Your task to perform on an android device: toggle sleep mode Image 0: 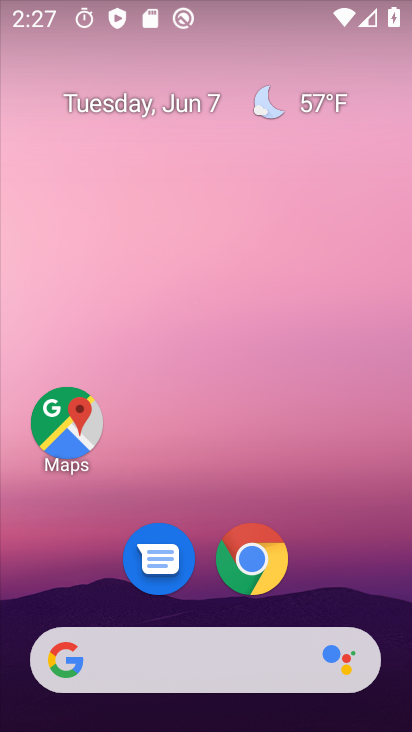
Step 0: drag from (363, 577) to (235, 10)
Your task to perform on an android device: toggle sleep mode Image 1: 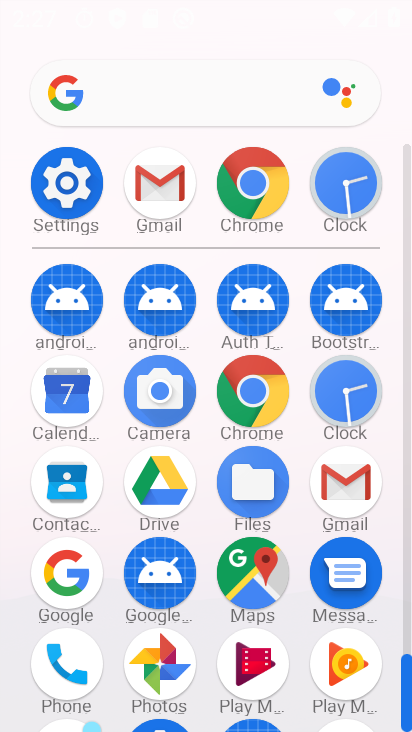
Step 1: drag from (32, 586) to (22, 235)
Your task to perform on an android device: toggle sleep mode Image 2: 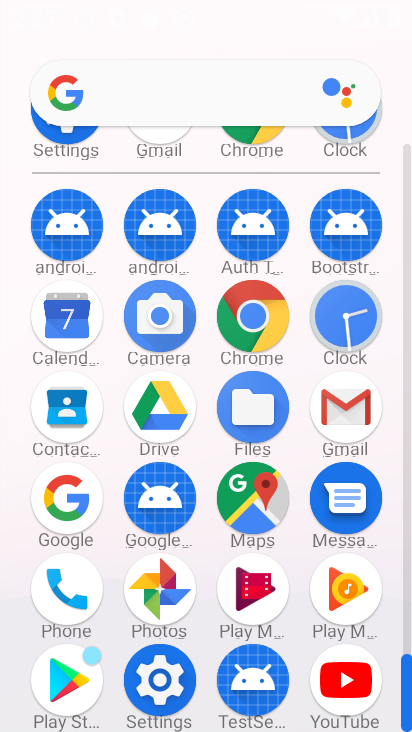
Step 2: click (160, 677)
Your task to perform on an android device: toggle sleep mode Image 3: 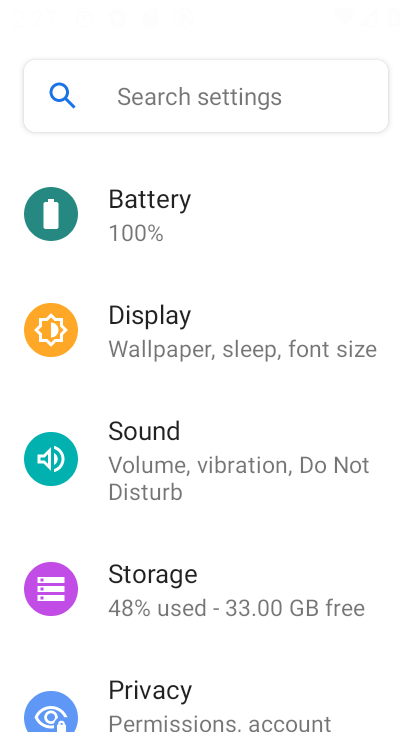
Step 3: drag from (236, 209) to (303, 659)
Your task to perform on an android device: toggle sleep mode Image 4: 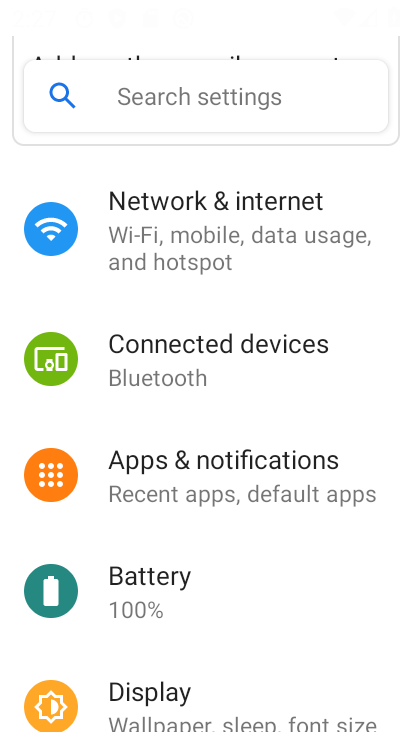
Step 4: drag from (283, 198) to (290, 629)
Your task to perform on an android device: toggle sleep mode Image 5: 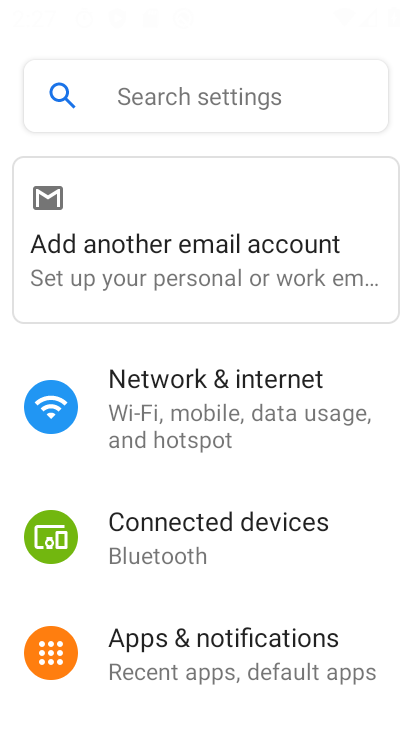
Step 5: drag from (274, 581) to (320, 212)
Your task to perform on an android device: toggle sleep mode Image 6: 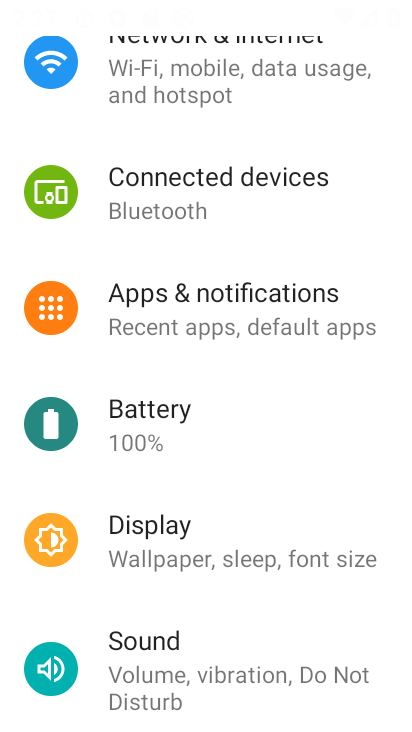
Step 6: drag from (313, 230) to (291, 590)
Your task to perform on an android device: toggle sleep mode Image 7: 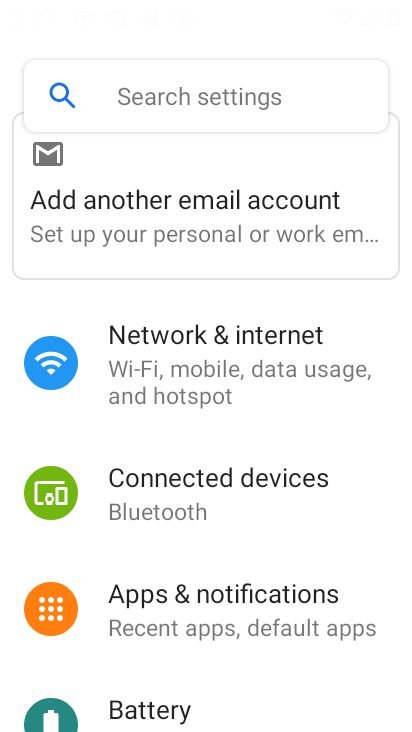
Step 7: drag from (298, 625) to (309, 207)
Your task to perform on an android device: toggle sleep mode Image 8: 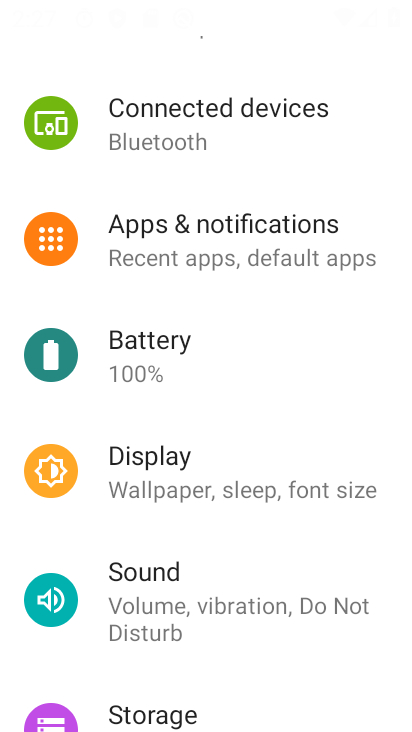
Step 8: drag from (292, 638) to (322, 442)
Your task to perform on an android device: toggle sleep mode Image 9: 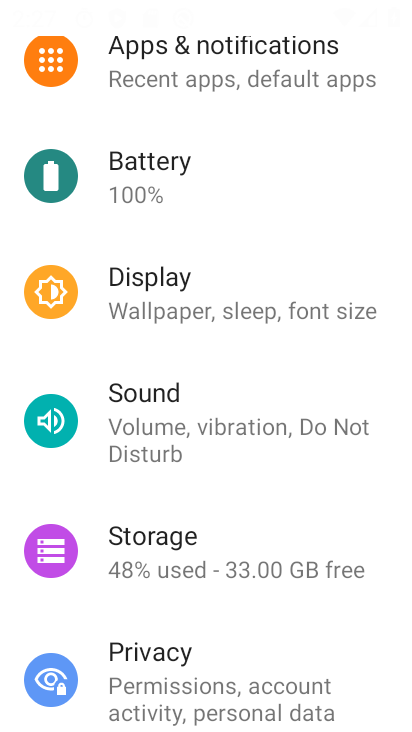
Step 9: click (279, 291)
Your task to perform on an android device: toggle sleep mode Image 10: 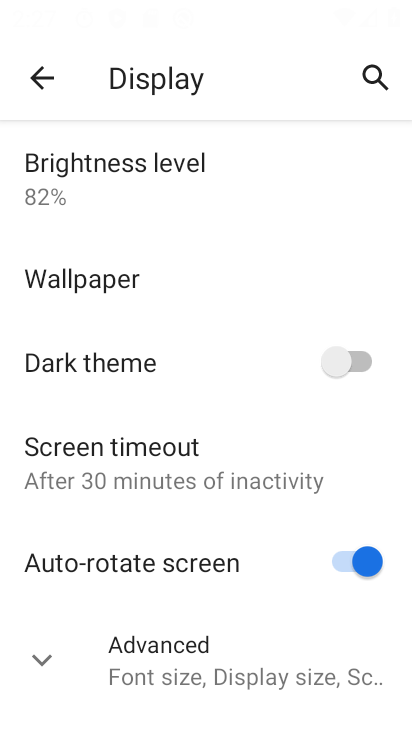
Step 10: drag from (205, 654) to (261, 235)
Your task to perform on an android device: toggle sleep mode Image 11: 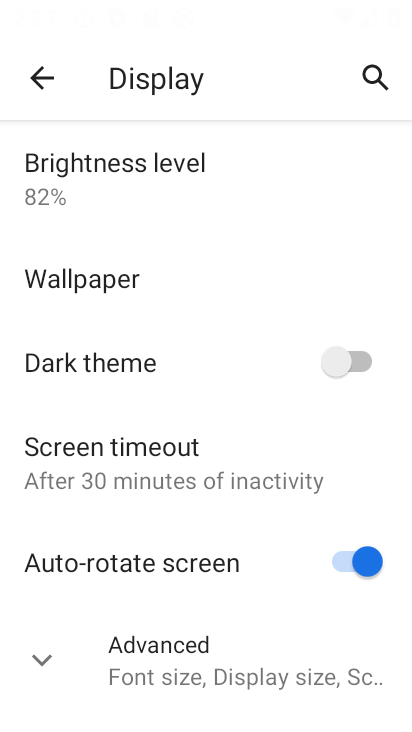
Step 11: click (85, 653)
Your task to perform on an android device: toggle sleep mode Image 12: 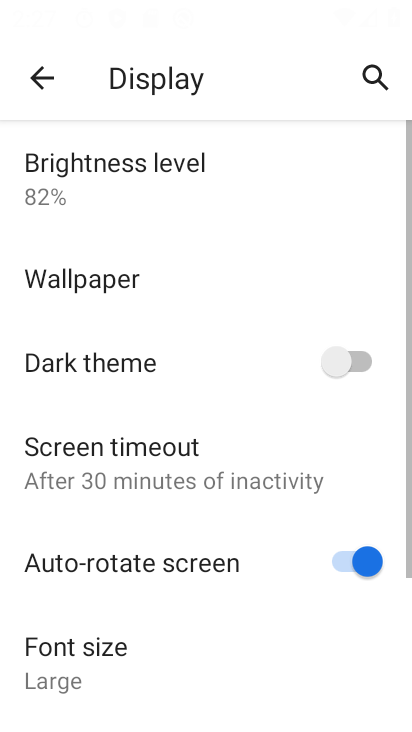
Step 12: drag from (202, 657) to (279, 263)
Your task to perform on an android device: toggle sleep mode Image 13: 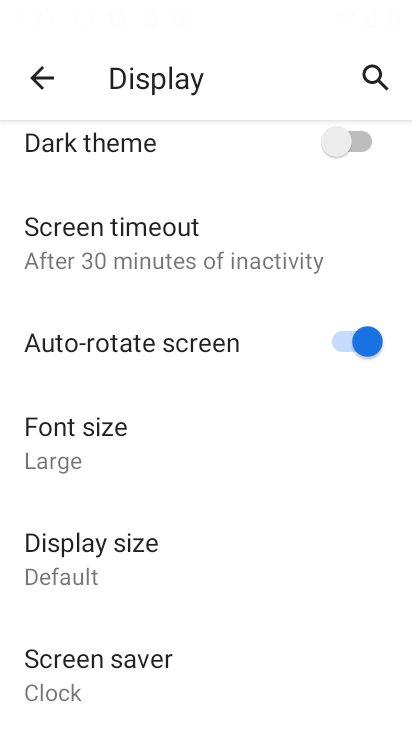
Step 13: drag from (218, 639) to (260, 142)
Your task to perform on an android device: toggle sleep mode Image 14: 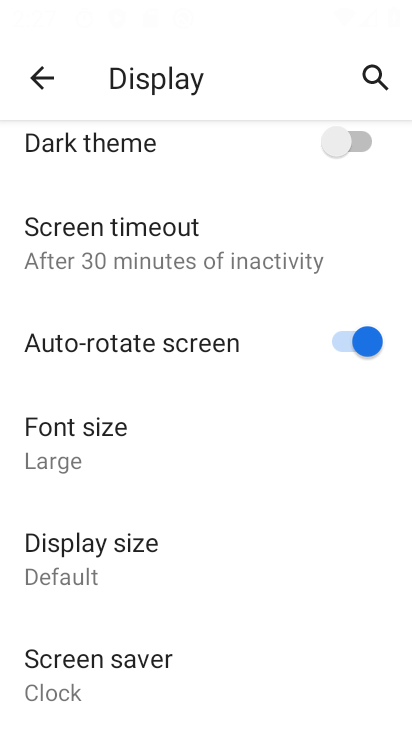
Step 14: drag from (246, 199) to (246, 623)
Your task to perform on an android device: toggle sleep mode Image 15: 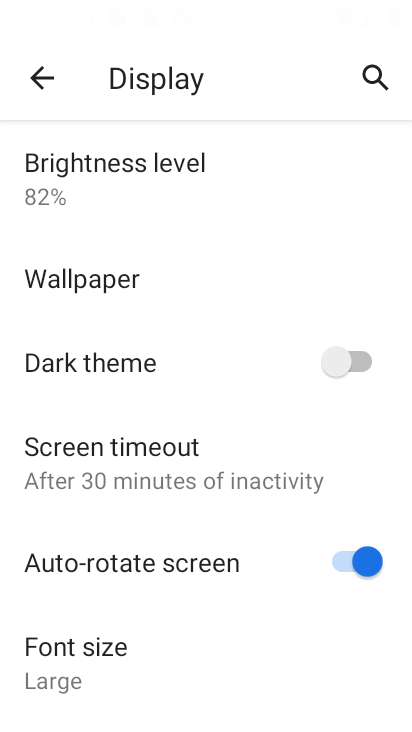
Step 15: drag from (202, 599) to (257, 151)
Your task to perform on an android device: toggle sleep mode Image 16: 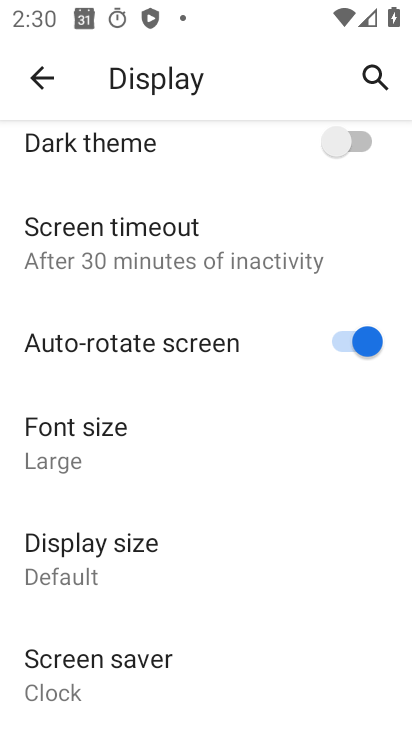
Step 16: click (37, 68)
Your task to perform on an android device: toggle sleep mode Image 17: 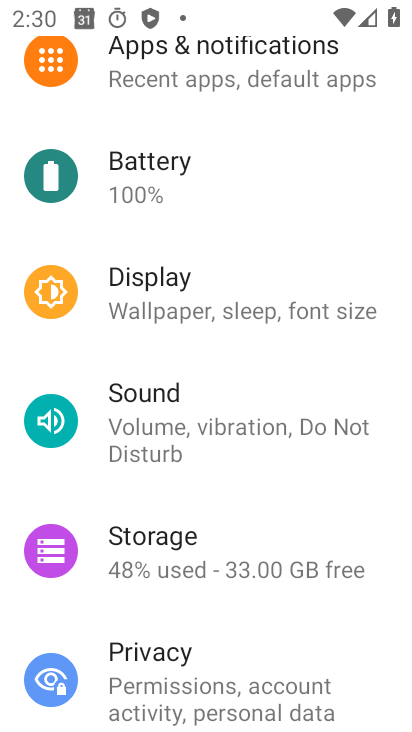
Step 17: drag from (251, 198) to (273, 622)
Your task to perform on an android device: toggle sleep mode Image 18: 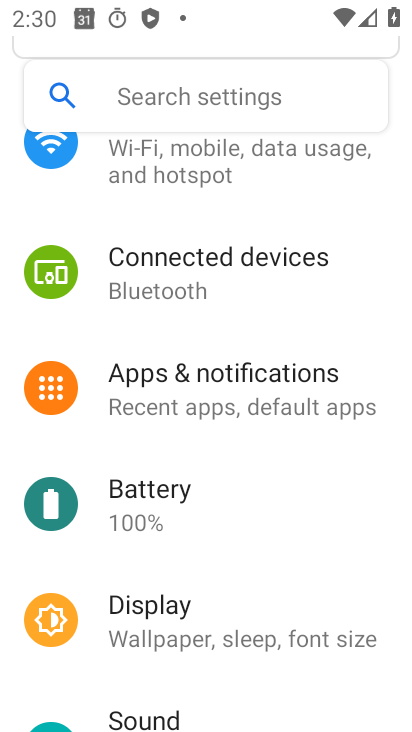
Step 18: drag from (293, 183) to (272, 635)
Your task to perform on an android device: toggle sleep mode Image 19: 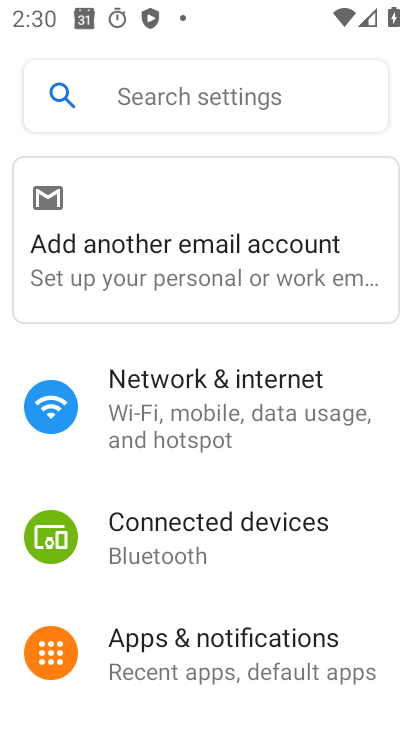
Step 19: drag from (273, 617) to (321, 234)
Your task to perform on an android device: toggle sleep mode Image 20: 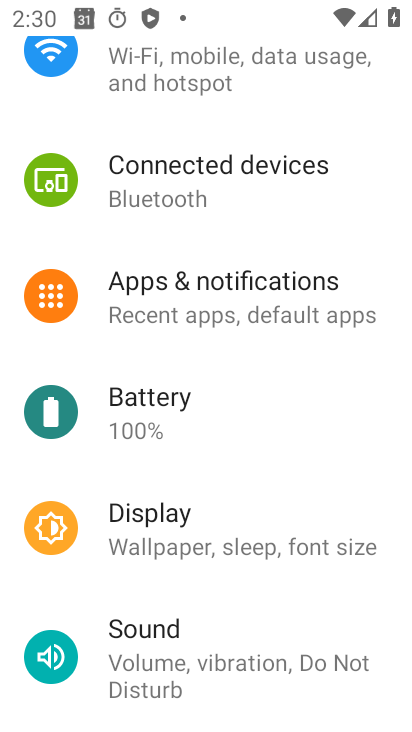
Step 20: drag from (270, 544) to (308, 238)
Your task to perform on an android device: toggle sleep mode Image 21: 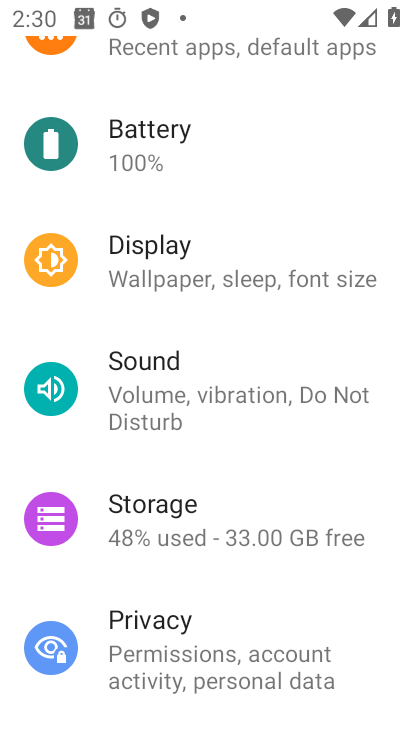
Step 21: drag from (294, 619) to (292, 208)
Your task to perform on an android device: toggle sleep mode Image 22: 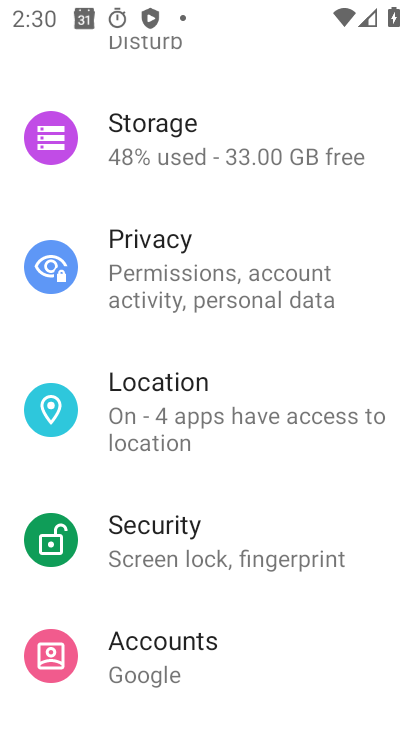
Step 22: drag from (291, 164) to (296, 569)
Your task to perform on an android device: toggle sleep mode Image 23: 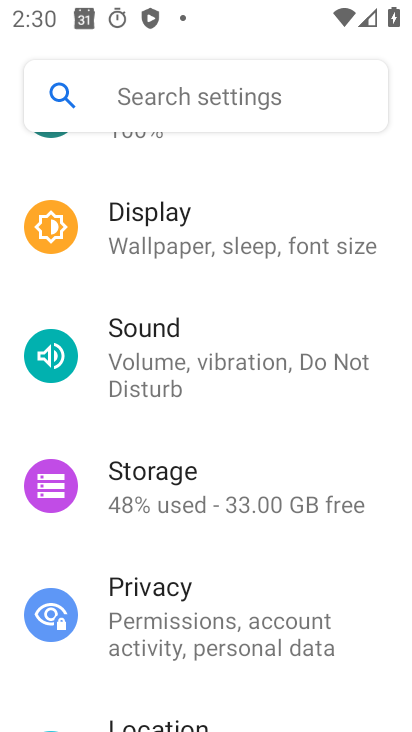
Step 23: drag from (301, 182) to (301, 628)
Your task to perform on an android device: toggle sleep mode Image 24: 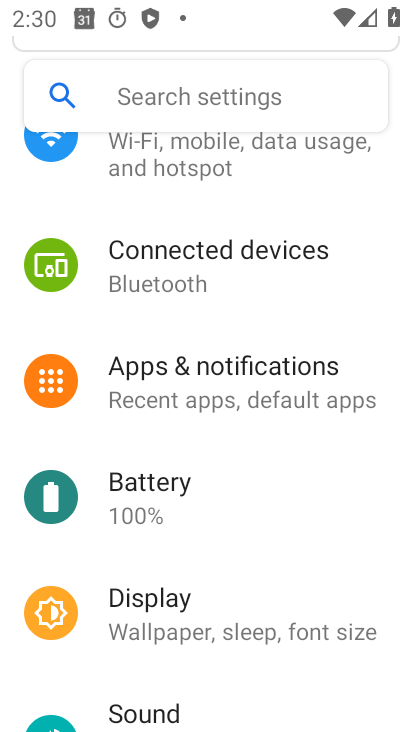
Step 24: click (249, 618)
Your task to perform on an android device: toggle sleep mode Image 25: 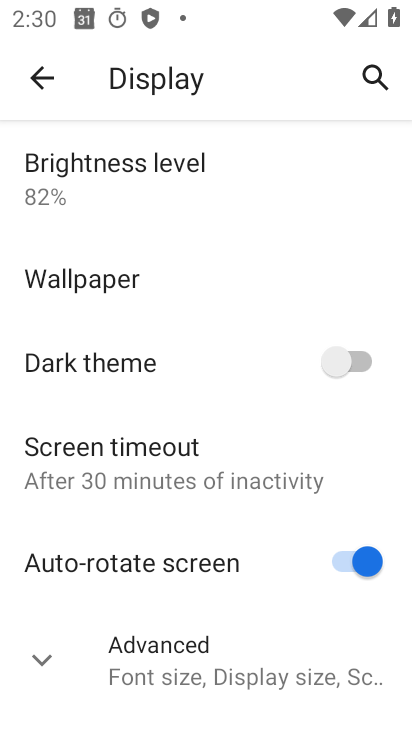
Step 25: click (35, 651)
Your task to perform on an android device: toggle sleep mode Image 26: 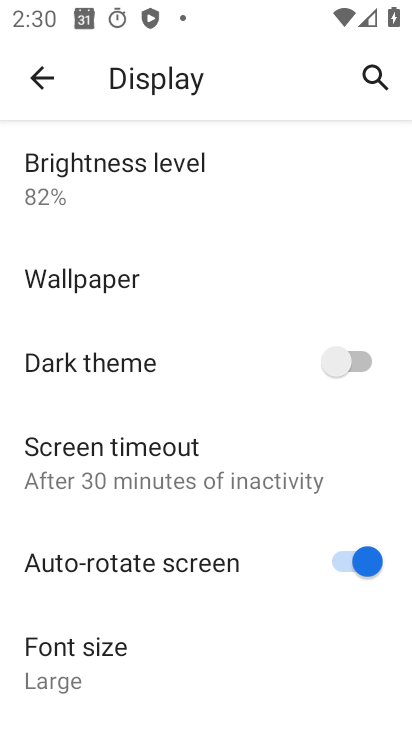
Step 26: task complete